Your task to perform on an android device: toggle priority inbox in the gmail app Image 0: 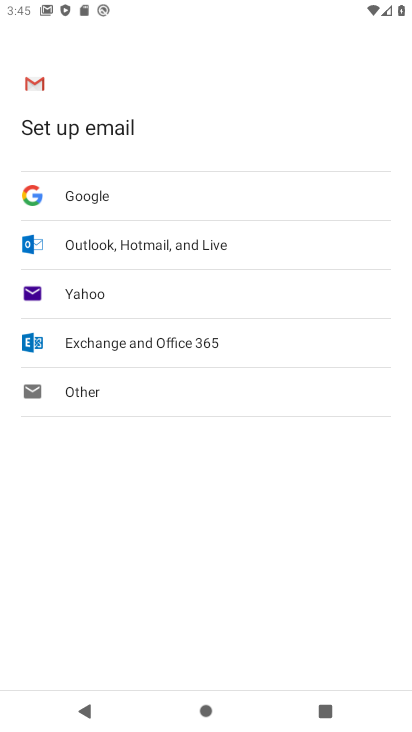
Step 0: press home button
Your task to perform on an android device: toggle priority inbox in the gmail app Image 1: 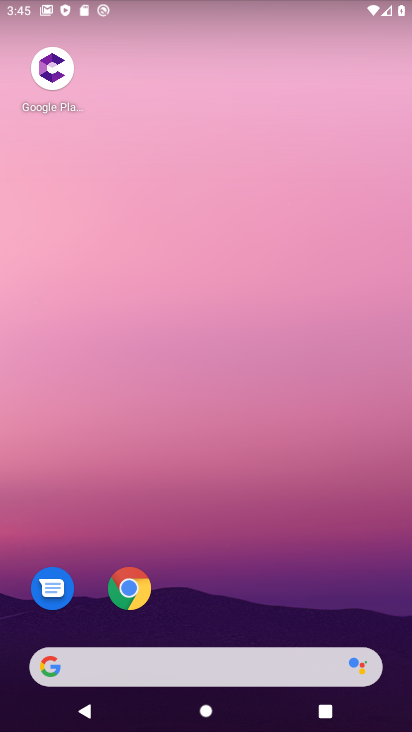
Step 1: drag from (221, 626) to (261, 2)
Your task to perform on an android device: toggle priority inbox in the gmail app Image 2: 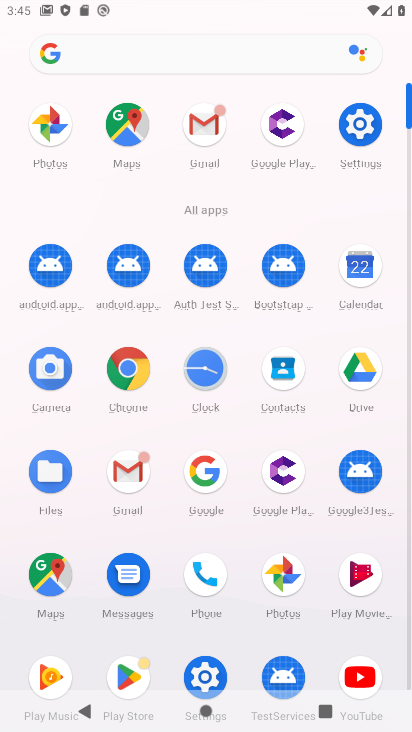
Step 2: click (213, 133)
Your task to perform on an android device: toggle priority inbox in the gmail app Image 3: 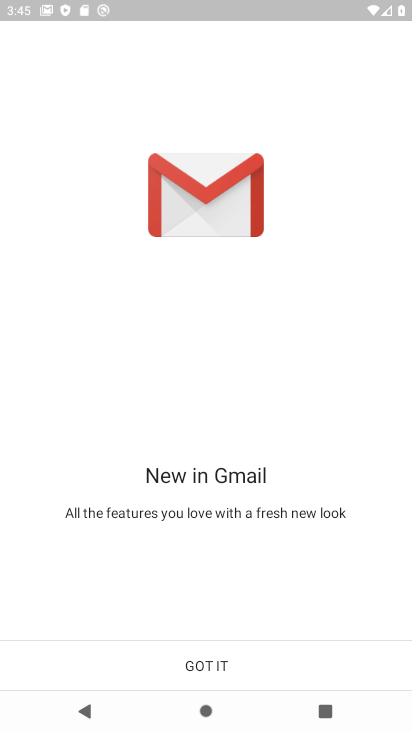
Step 3: click (247, 681)
Your task to perform on an android device: toggle priority inbox in the gmail app Image 4: 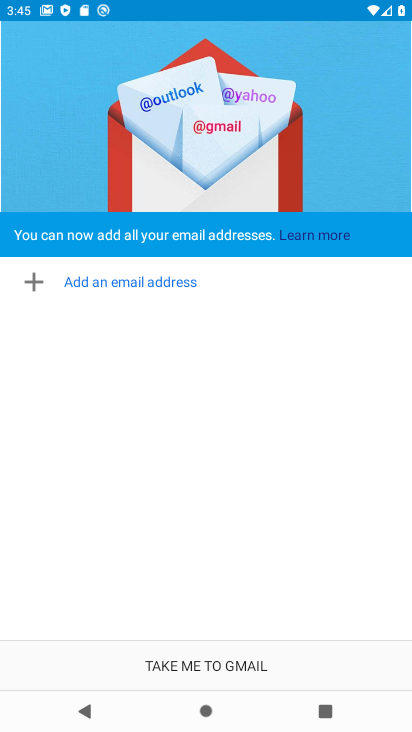
Step 4: click (223, 661)
Your task to perform on an android device: toggle priority inbox in the gmail app Image 5: 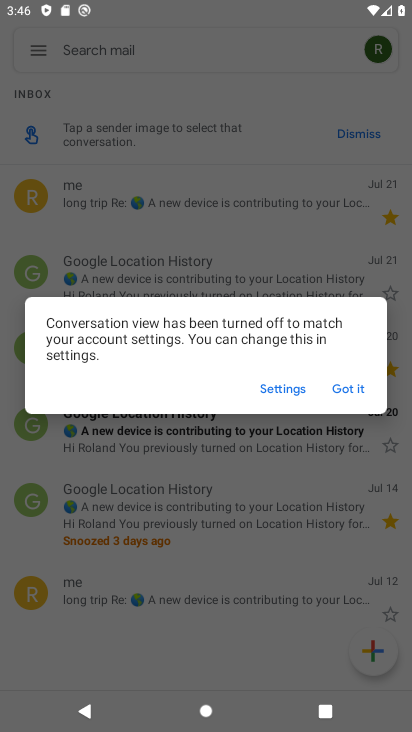
Step 5: click (348, 399)
Your task to perform on an android device: toggle priority inbox in the gmail app Image 6: 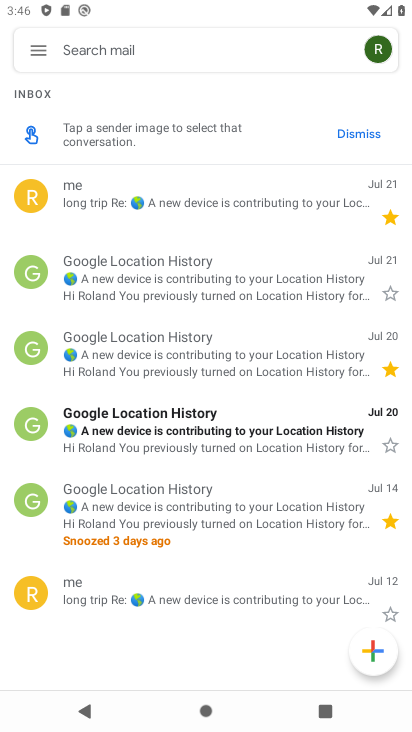
Step 6: click (39, 51)
Your task to perform on an android device: toggle priority inbox in the gmail app Image 7: 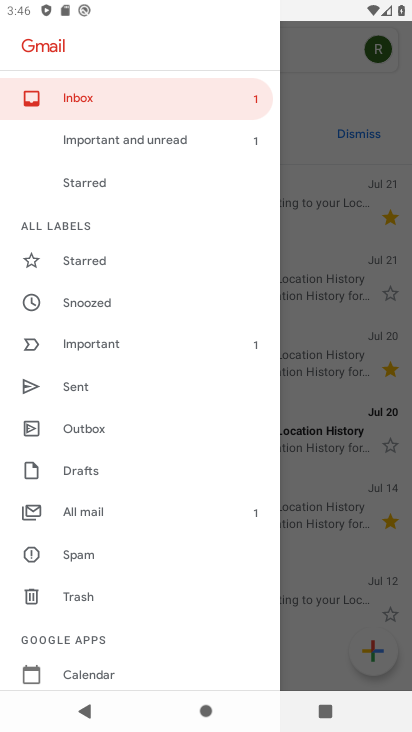
Step 7: drag from (125, 632) to (120, 239)
Your task to perform on an android device: toggle priority inbox in the gmail app Image 8: 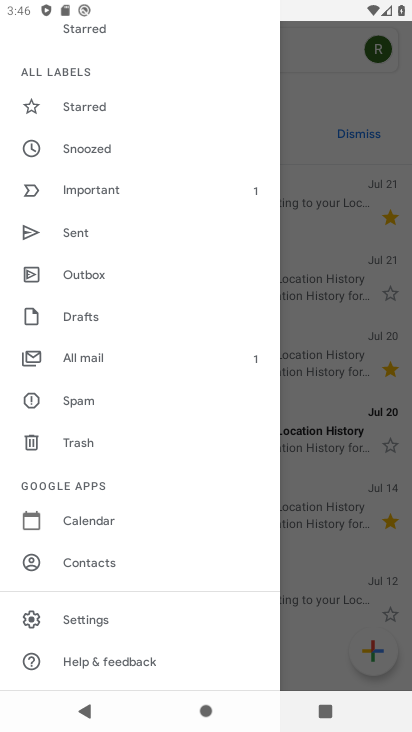
Step 8: click (115, 612)
Your task to perform on an android device: toggle priority inbox in the gmail app Image 9: 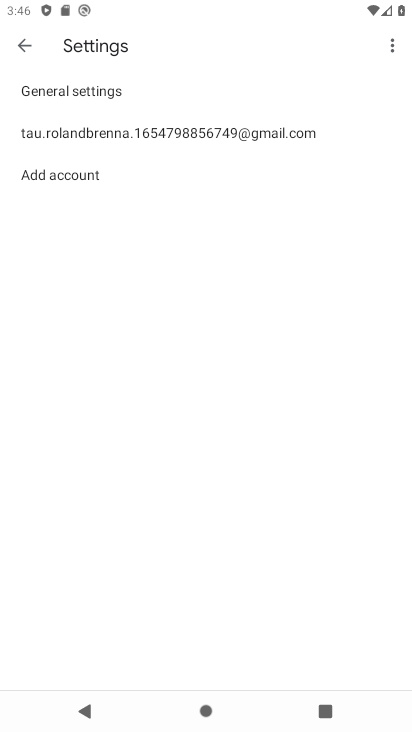
Step 9: click (165, 135)
Your task to perform on an android device: toggle priority inbox in the gmail app Image 10: 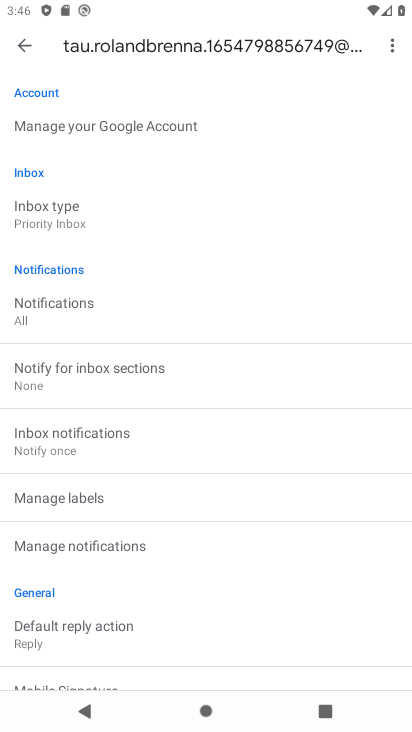
Step 10: click (137, 222)
Your task to perform on an android device: toggle priority inbox in the gmail app Image 11: 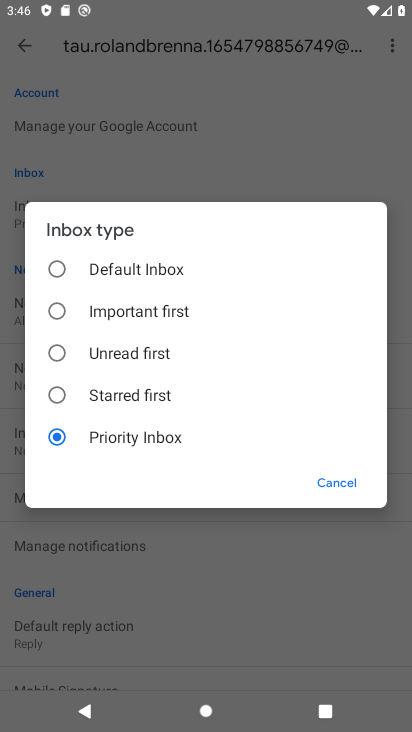
Step 11: click (138, 264)
Your task to perform on an android device: toggle priority inbox in the gmail app Image 12: 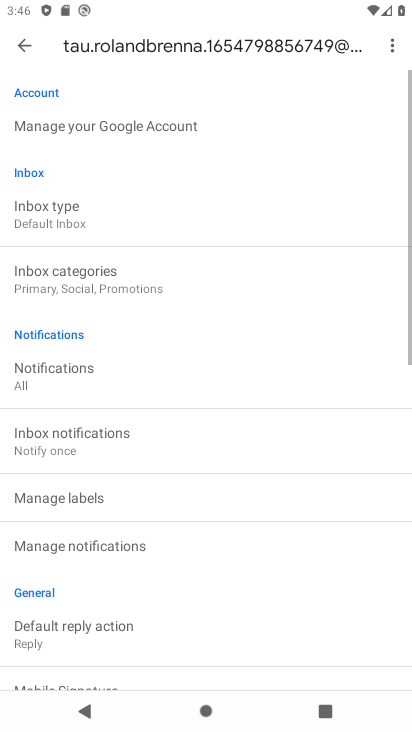
Step 12: task complete